Your task to perform on an android device: Go to Yahoo.com Image 0: 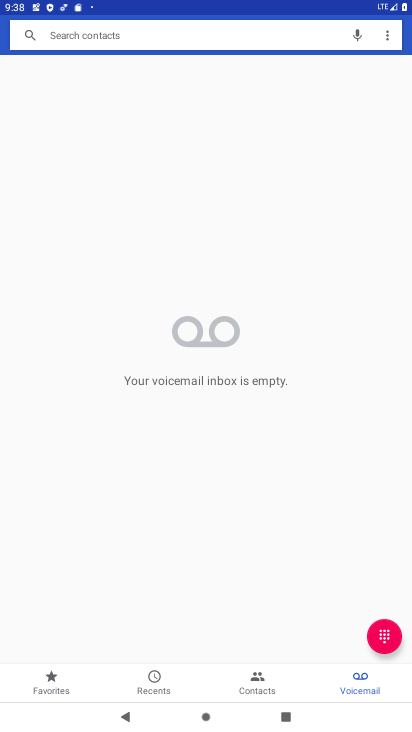
Step 0: press home button
Your task to perform on an android device: Go to Yahoo.com Image 1: 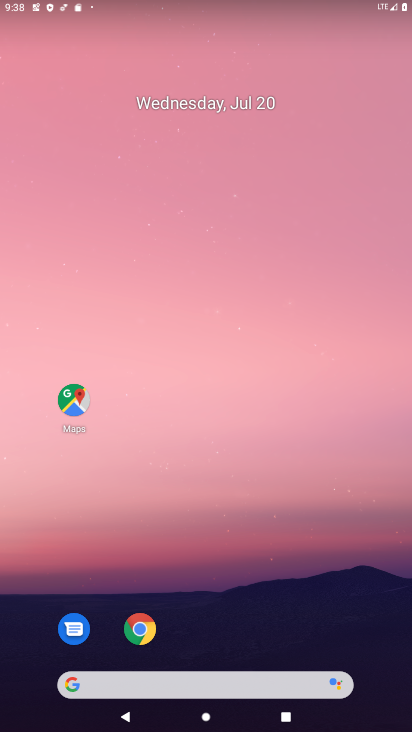
Step 1: click (137, 624)
Your task to perform on an android device: Go to Yahoo.com Image 2: 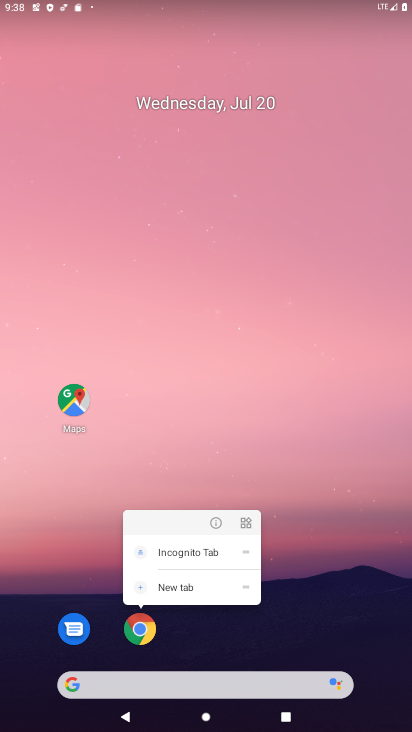
Step 2: click (152, 636)
Your task to perform on an android device: Go to Yahoo.com Image 3: 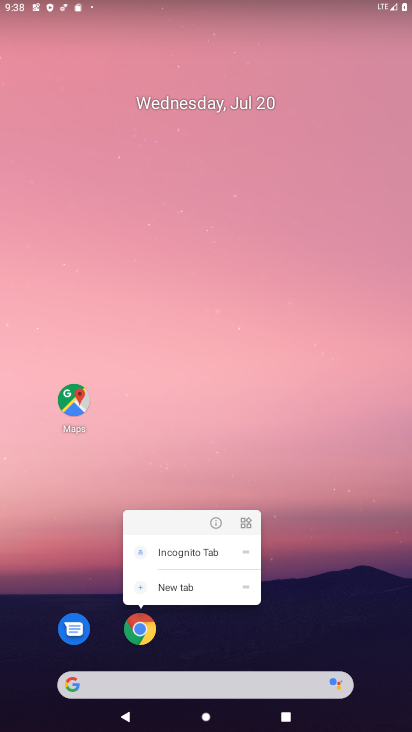
Step 3: click (152, 636)
Your task to perform on an android device: Go to Yahoo.com Image 4: 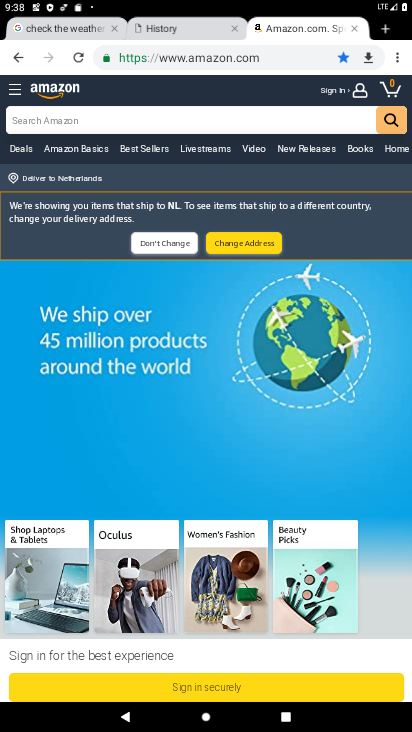
Step 4: click (258, 55)
Your task to perform on an android device: Go to Yahoo.com Image 5: 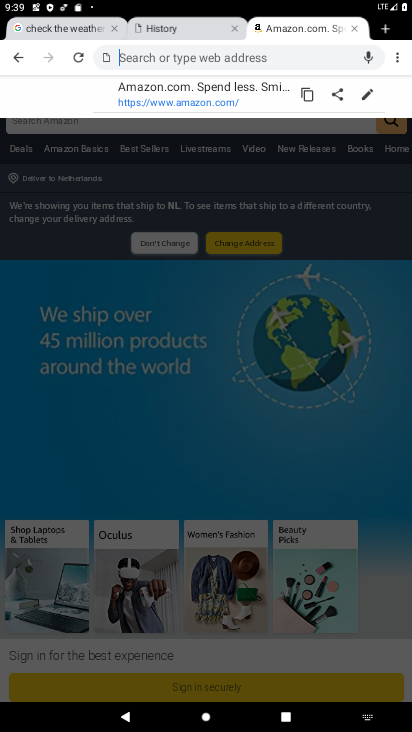
Step 5: type "Yahoo.com"
Your task to perform on an android device: Go to Yahoo.com Image 6: 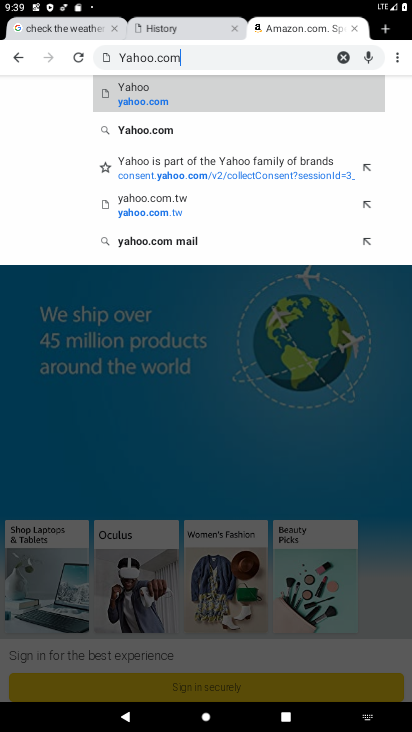
Step 6: click (171, 83)
Your task to perform on an android device: Go to Yahoo.com Image 7: 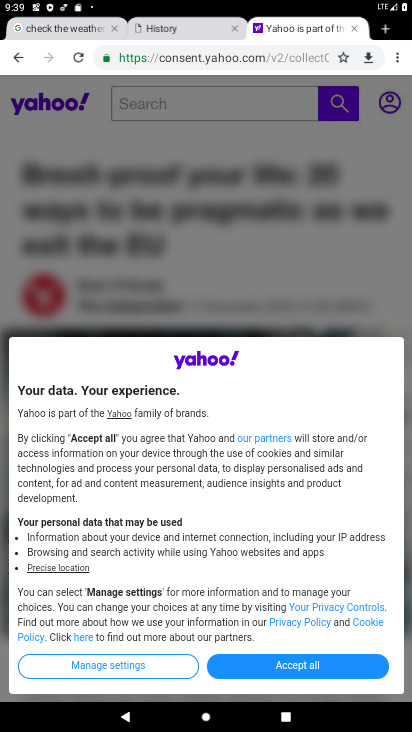
Step 7: task complete